Your task to perform on an android device: Open Yahoo.com Image 0: 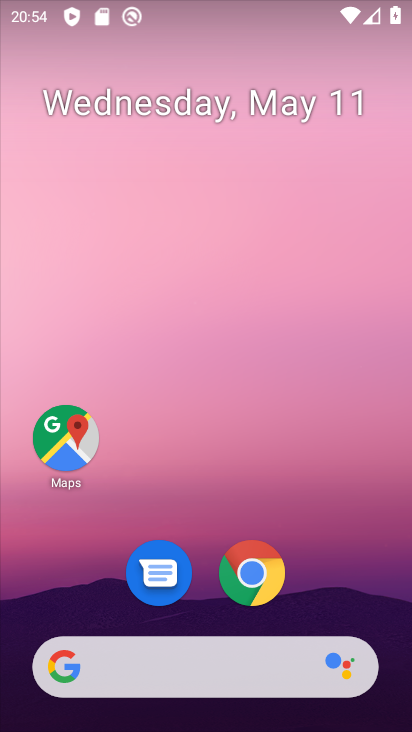
Step 0: drag from (331, 595) to (301, 107)
Your task to perform on an android device: Open Yahoo.com Image 1: 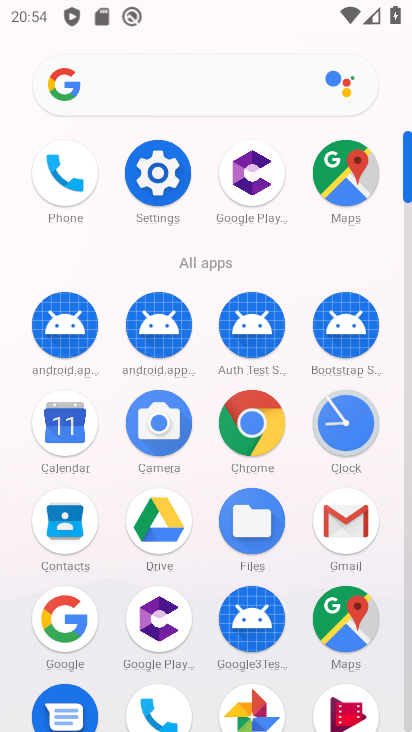
Step 1: click (173, 196)
Your task to perform on an android device: Open Yahoo.com Image 2: 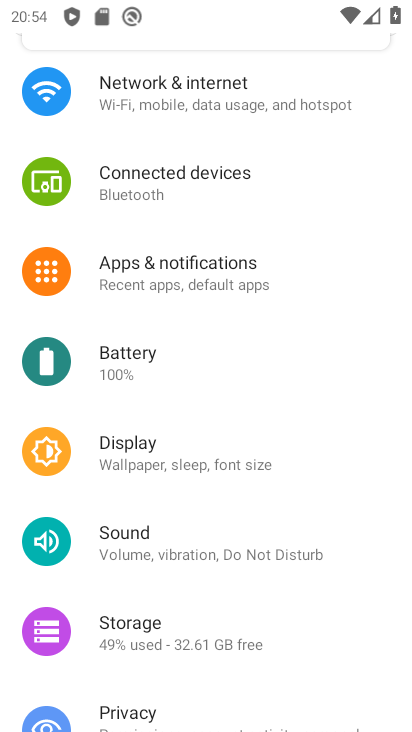
Step 2: press home button
Your task to perform on an android device: Open Yahoo.com Image 3: 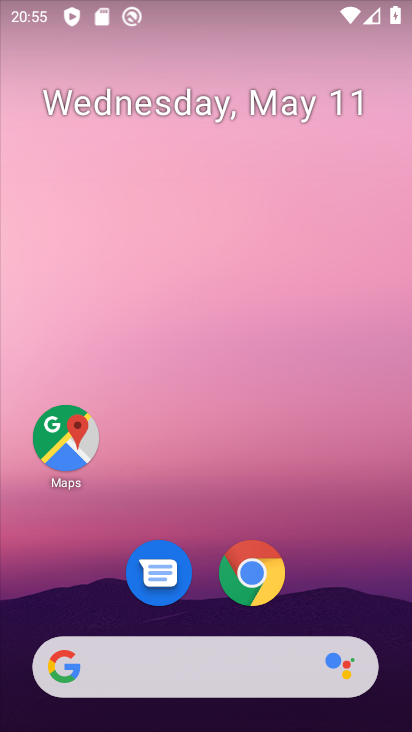
Step 3: click (271, 592)
Your task to perform on an android device: Open Yahoo.com Image 4: 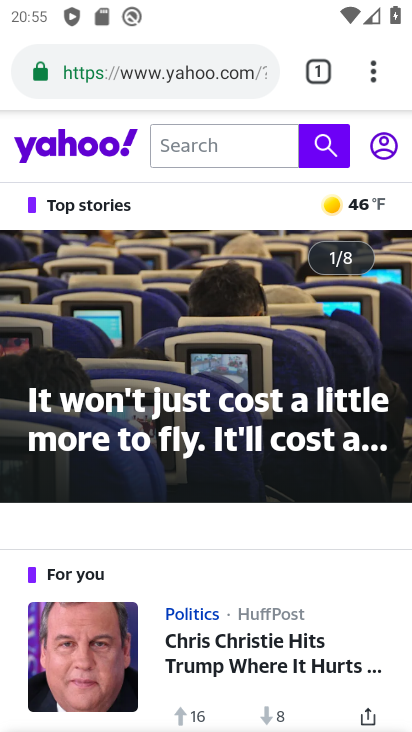
Step 4: task complete